Your task to perform on an android device: find snoozed emails in the gmail app Image 0: 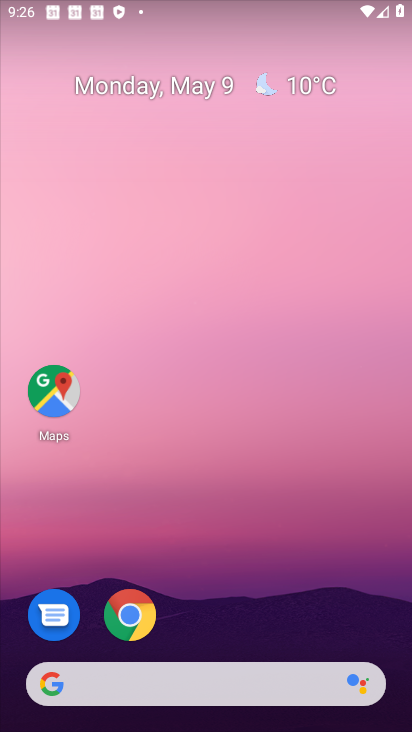
Step 0: drag from (198, 472) to (294, 18)
Your task to perform on an android device: find snoozed emails in the gmail app Image 1: 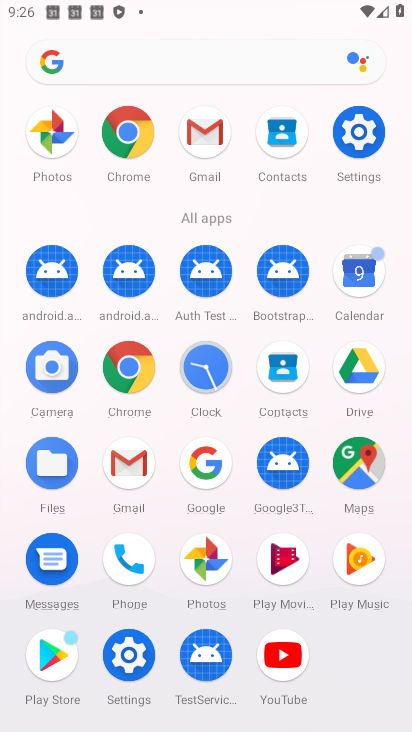
Step 1: click (214, 139)
Your task to perform on an android device: find snoozed emails in the gmail app Image 2: 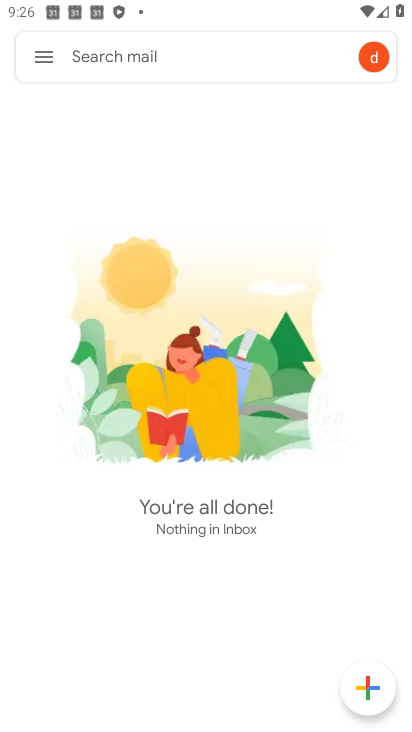
Step 2: click (46, 56)
Your task to perform on an android device: find snoozed emails in the gmail app Image 3: 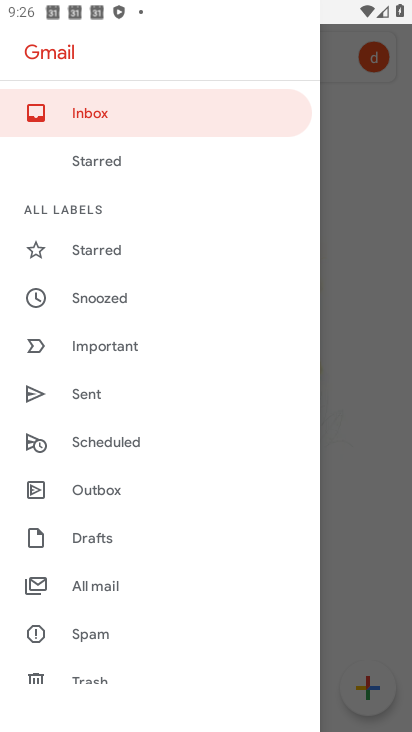
Step 3: drag from (94, 640) to (173, 235)
Your task to perform on an android device: find snoozed emails in the gmail app Image 4: 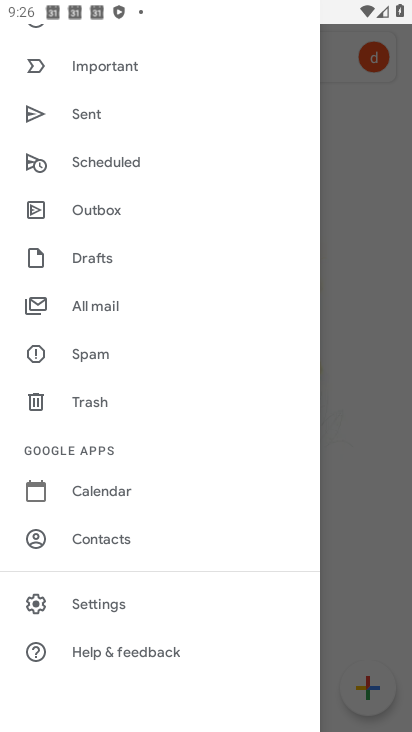
Step 4: drag from (148, 123) to (140, 357)
Your task to perform on an android device: find snoozed emails in the gmail app Image 5: 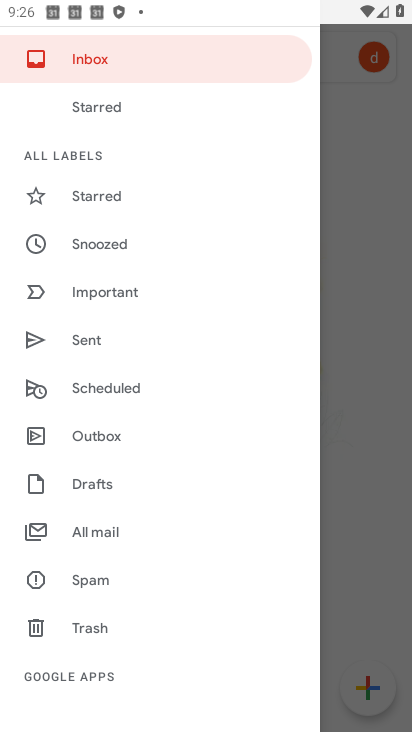
Step 5: click (118, 253)
Your task to perform on an android device: find snoozed emails in the gmail app Image 6: 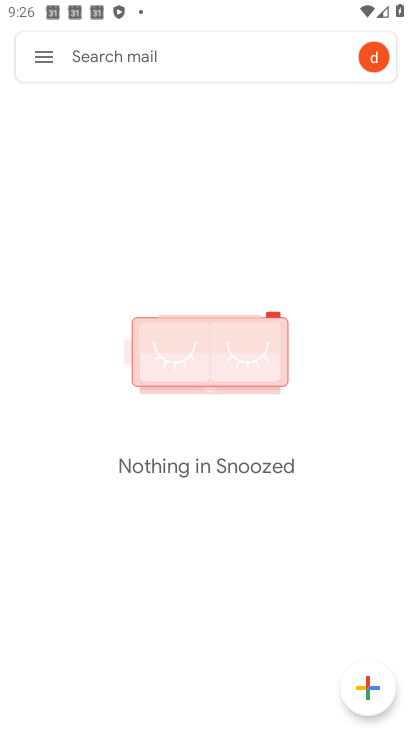
Step 6: task complete